Your task to perform on an android device: Go to Wikipedia Image 0: 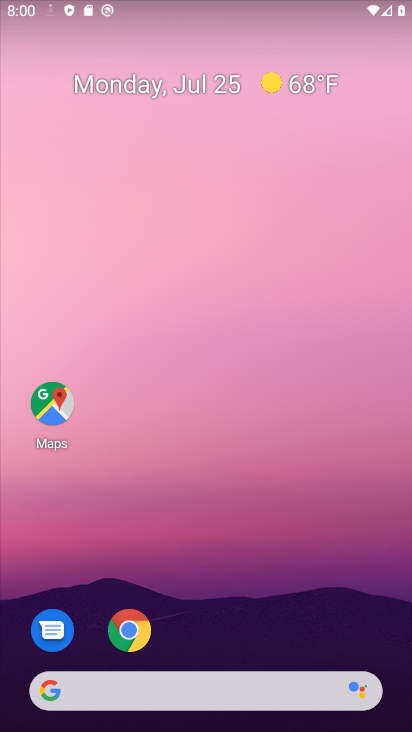
Step 0: click (130, 632)
Your task to perform on an android device: Go to Wikipedia Image 1: 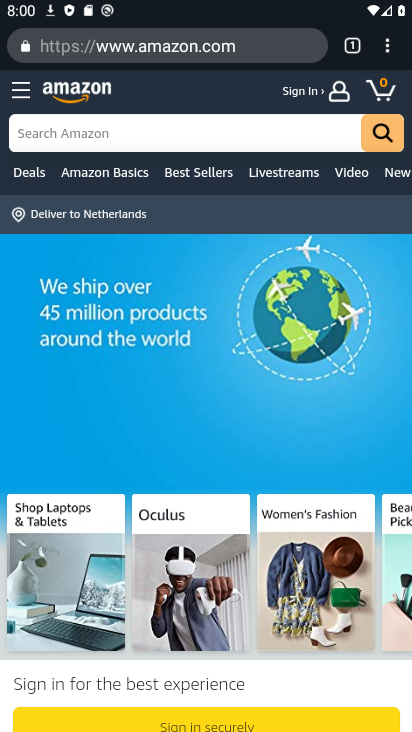
Step 1: drag from (389, 47) to (276, 154)
Your task to perform on an android device: Go to Wikipedia Image 2: 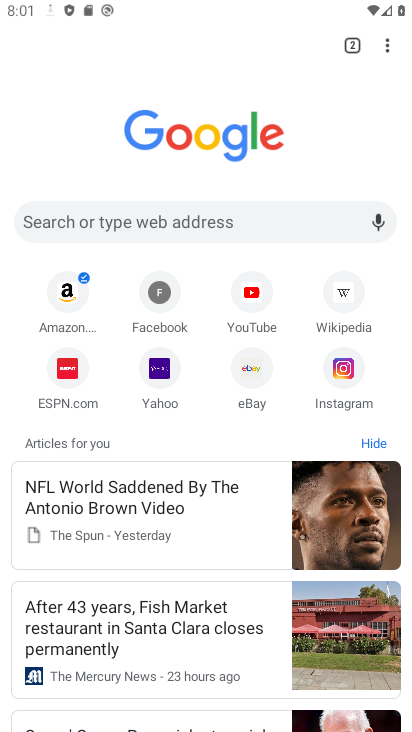
Step 2: click (348, 293)
Your task to perform on an android device: Go to Wikipedia Image 3: 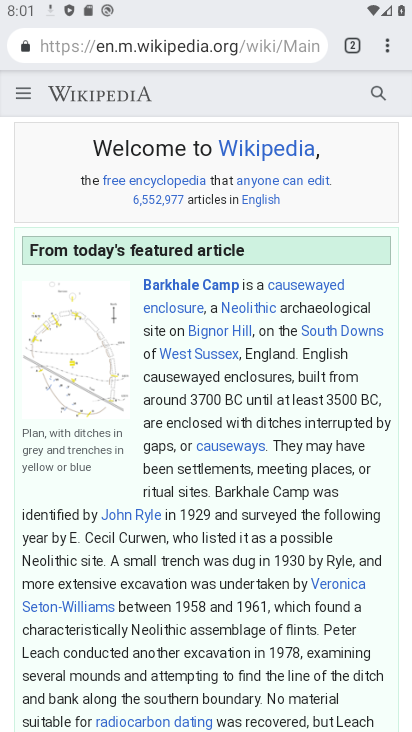
Step 3: task complete